Your task to perform on an android device: Open calendar and show me the second week of next month Image 0: 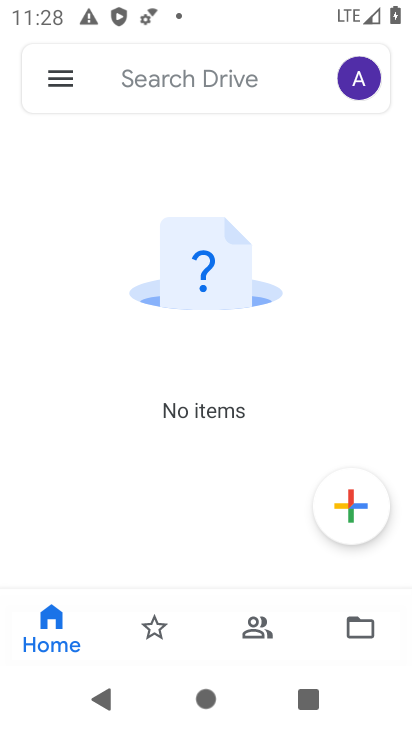
Step 0: press home button
Your task to perform on an android device: Open calendar and show me the second week of next month Image 1: 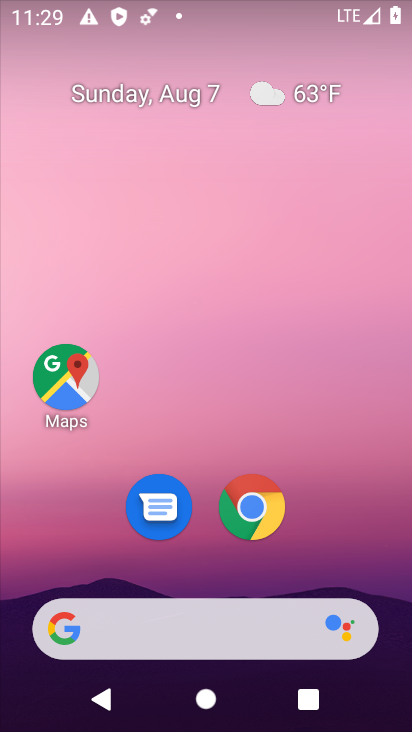
Step 1: drag from (375, 539) to (218, 108)
Your task to perform on an android device: Open calendar and show me the second week of next month Image 2: 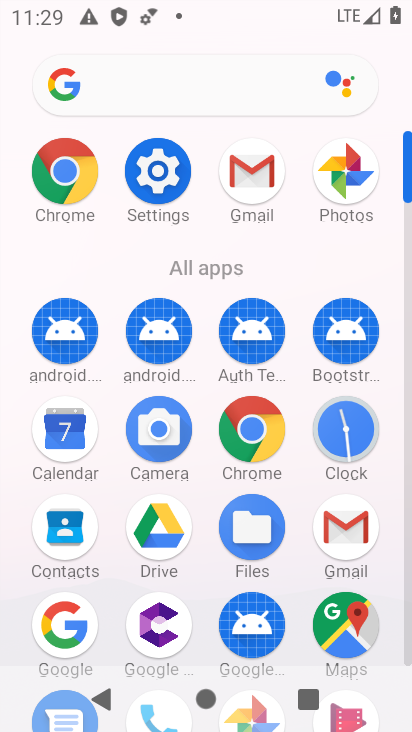
Step 2: click (73, 420)
Your task to perform on an android device: Open calendar and show me the second week of next month Image 3: 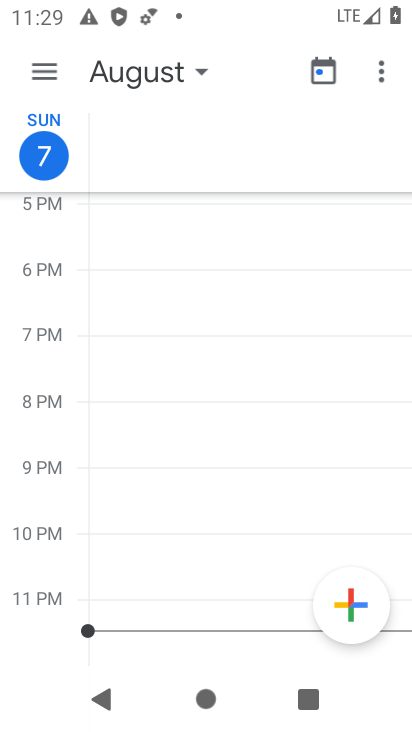
Step 3: click (42, 60)
Your task to perform on an android device: Open calendar and show me the second week of next month Image 4: 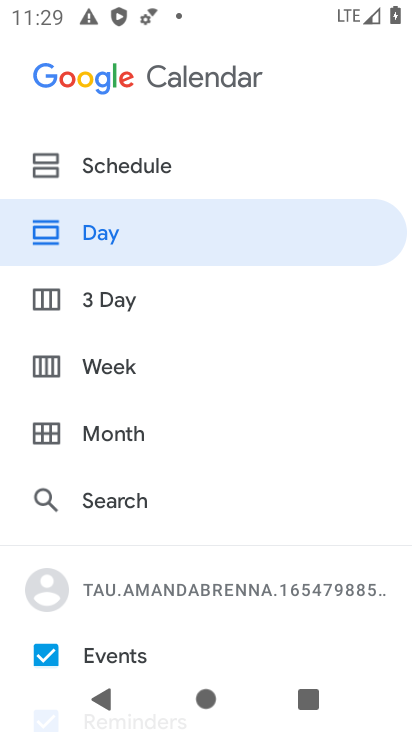
Step 4: click (137, 371)
Your task to perform on an android device: Open calendar and show me the second week of next month Image 5: 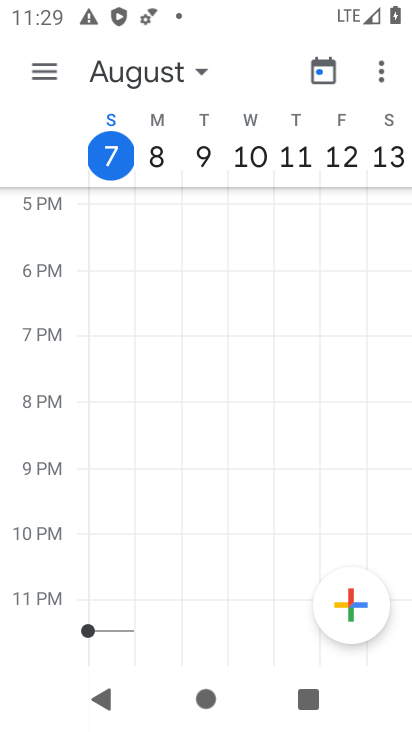
Step 5: click (149, 73)
Your task to perform on an android device: Open calendar and show me the second week of next month Image 6: 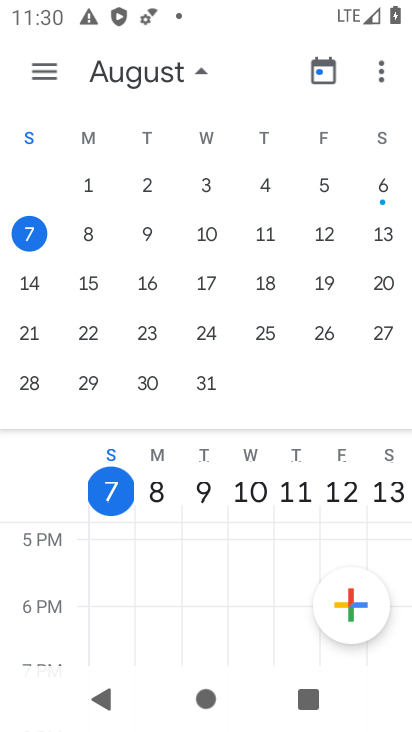
Step 6: drag from (392, 327) to (19, 262)
Your task to perform on an android device: Open calendar and show me the second week of next month Image 7: 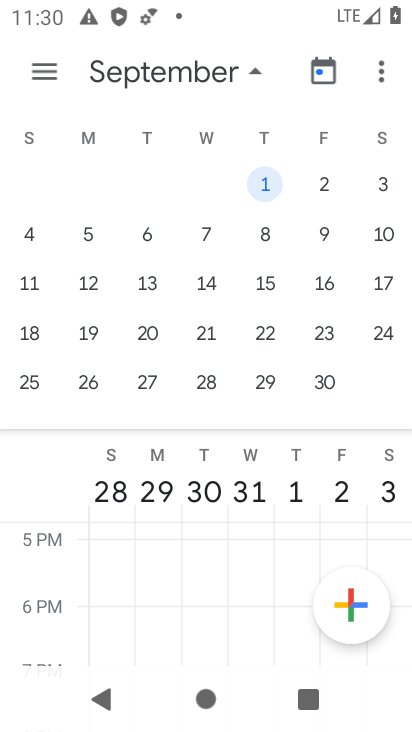
Step 7: click (214, 277)
Your task to perform on an android device: Open calendar and show me the second week of next month Image 8: 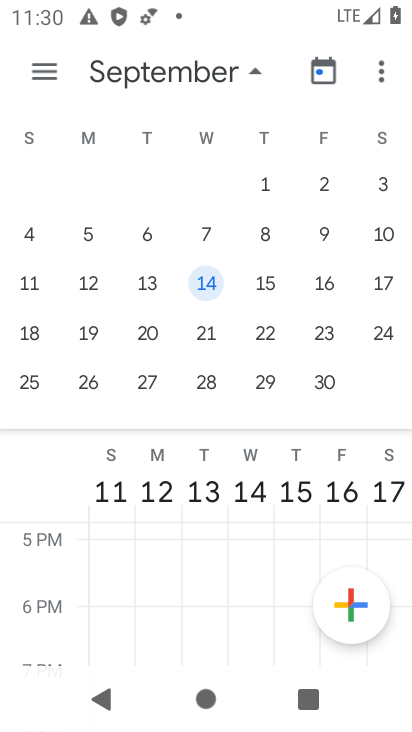
Step 8: task complete